Your task to perform on an android device: Show me popular videos on Youtube Image 0: 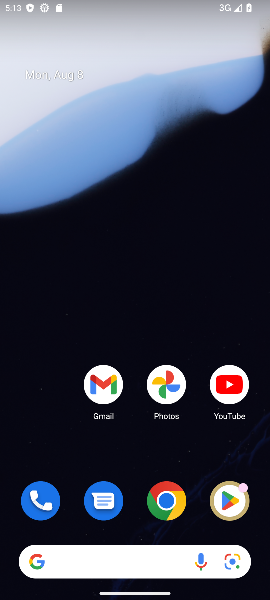
Step 0: click (226, 393)
Your task to perform on an android device: Show me popular videos on Youtube Image 1: 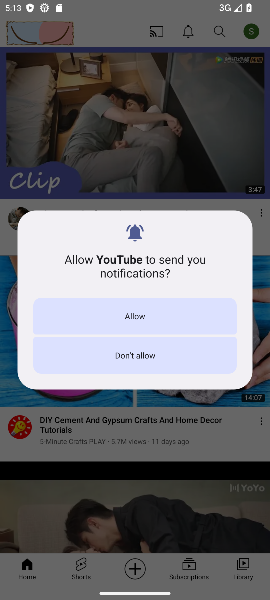
Step 1: click (128, 321)
Your task to perform on an android device: Show me popular videos on Youtube Image 2: 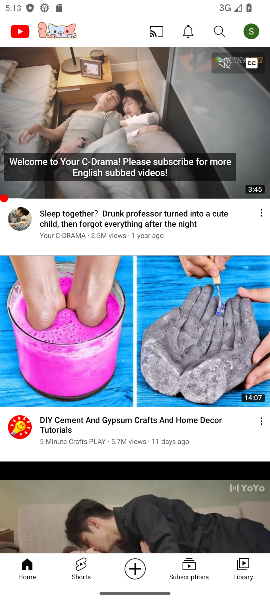
Step 2: click (217, 28)
Your task to perform on an android device: Show me popular videos on Youtube Image 3: 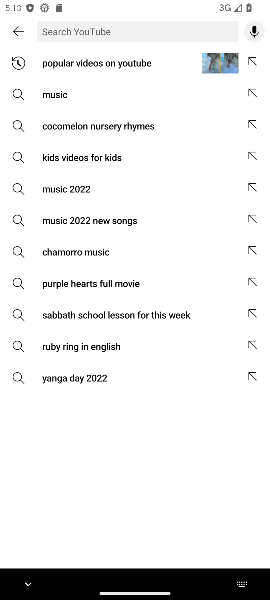
Step 3: click (82, 70)
Your task to perform on an android device: Show me popular videos on Youtube Image 4: 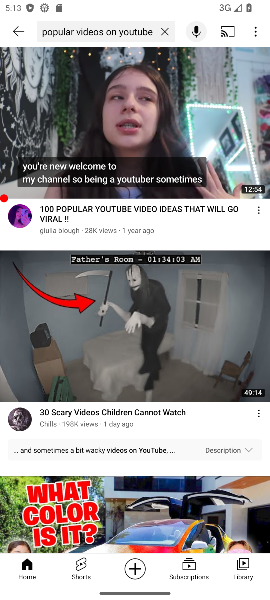
Step 4: task complete